Your task to perform on an android device: set the timer Image 0: 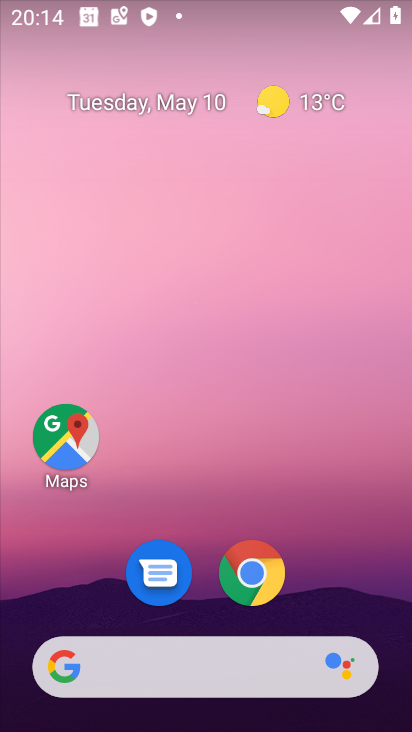
Step 0: drag from (321, 592) to (377, 7)
Your task to perform on an android device: set the timer Image 1: 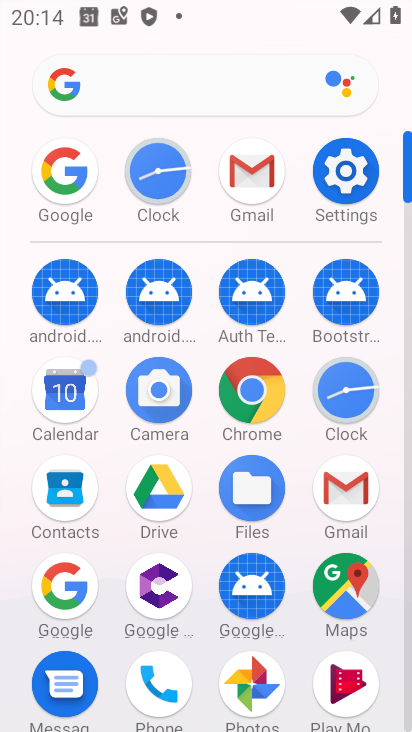
Step 1: click (163, 167)
Your task to perform on an android device: set the timer Image 2: 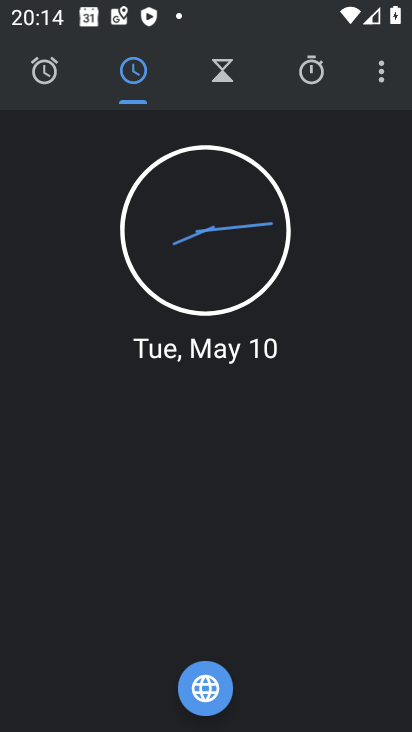
Step 2: click (223, 88)
Your task to perform on an android device: set the timer Image 3: 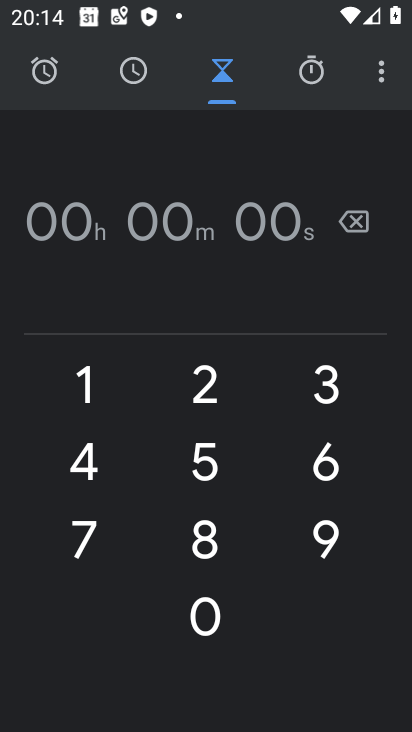
Step 3: click (205, 475)
Your task to perform on an android device: set the timer Image 4: 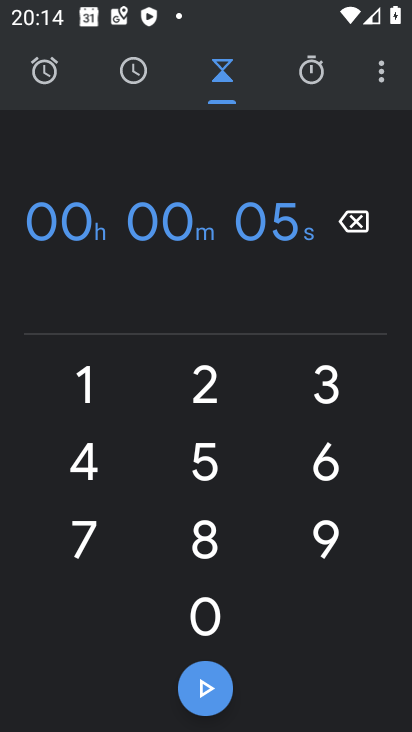
Step 4: click (202, 610)
Your task to perform on an android device: set the timer Image 5: 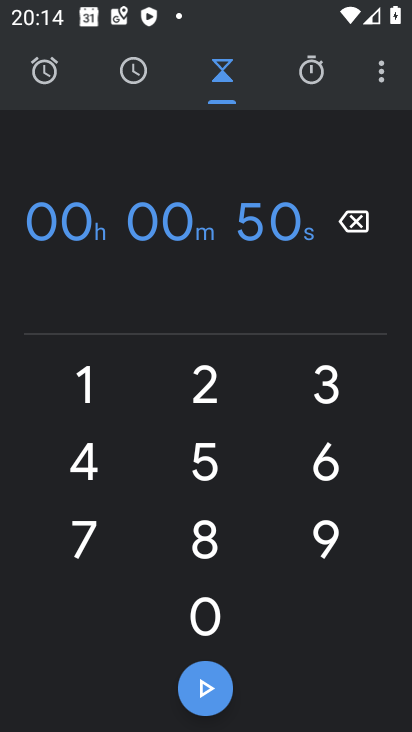
Step 5: click (190, 706)
Your task to perform on an android device: set the timer Image 6: 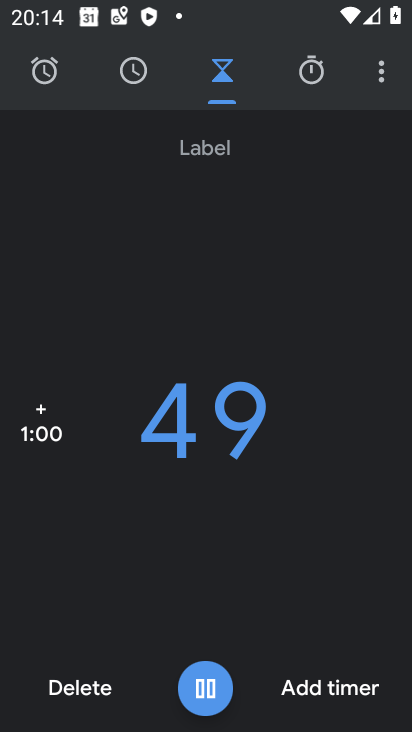
Step 6: task complete